Your task to perform on an android device: toggle sleep mode Image 0: 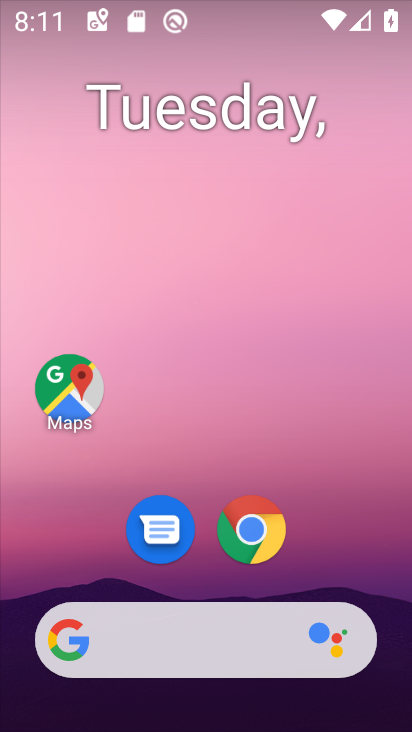
Step 0: drag from (194, 476) to (256, 27)
Your task to perform on an android device: toggle sleep mode Image 1: 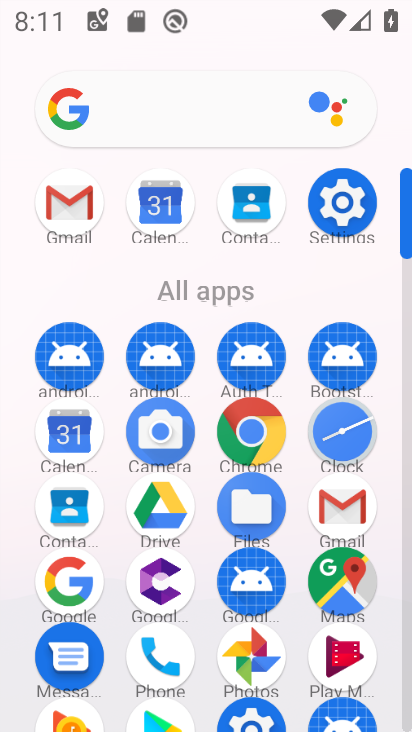
Step 1: click (347, 196)
Your task to perform on an android device: toggle sleep mode Image 2: 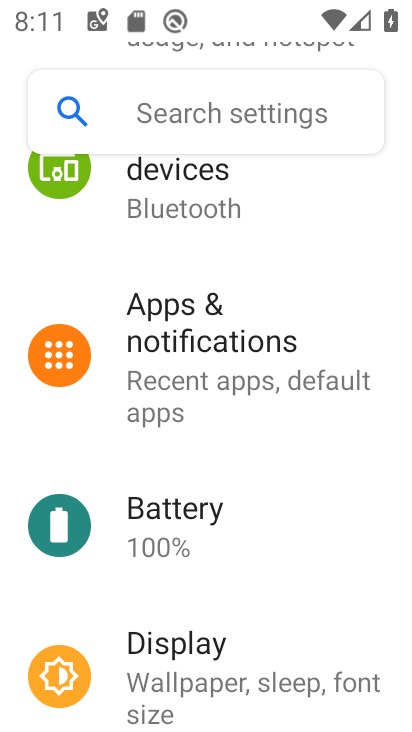
Step 2: click (218, 118)
Your task to perform on an android device: toggle sleep mode Image 3: 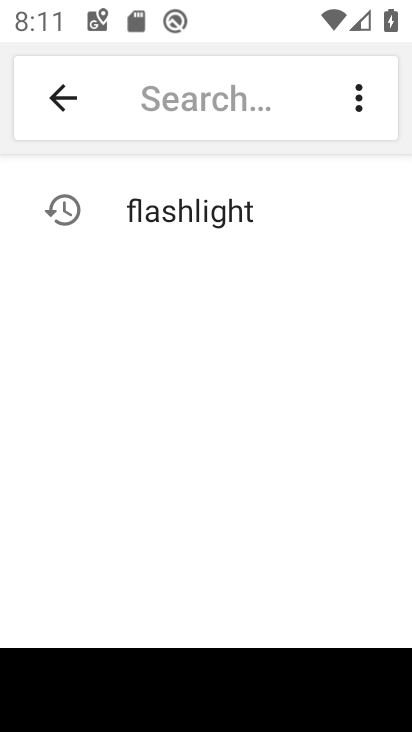
Step 3: type "sleep mode"
Your task to perform on an android device: toggle sleep mode Image 4: 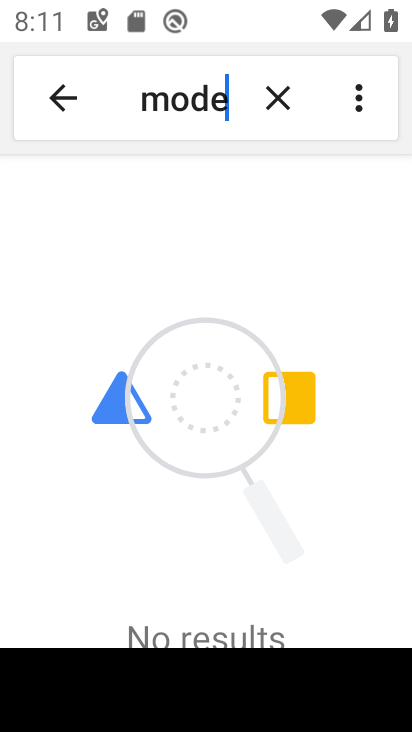
Step 4: task complete